Your task to perform on an android device: Search for the best books on Goodreads Image 0: 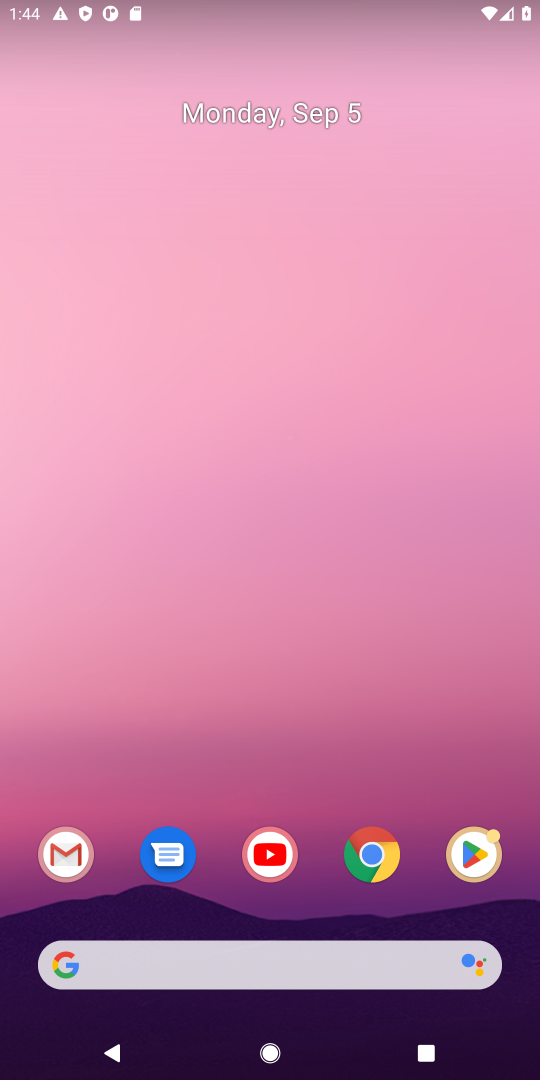
Step 0: click (334, 960)
Your task to perform on an android device: Search for the best books on Goodreads Image 1: 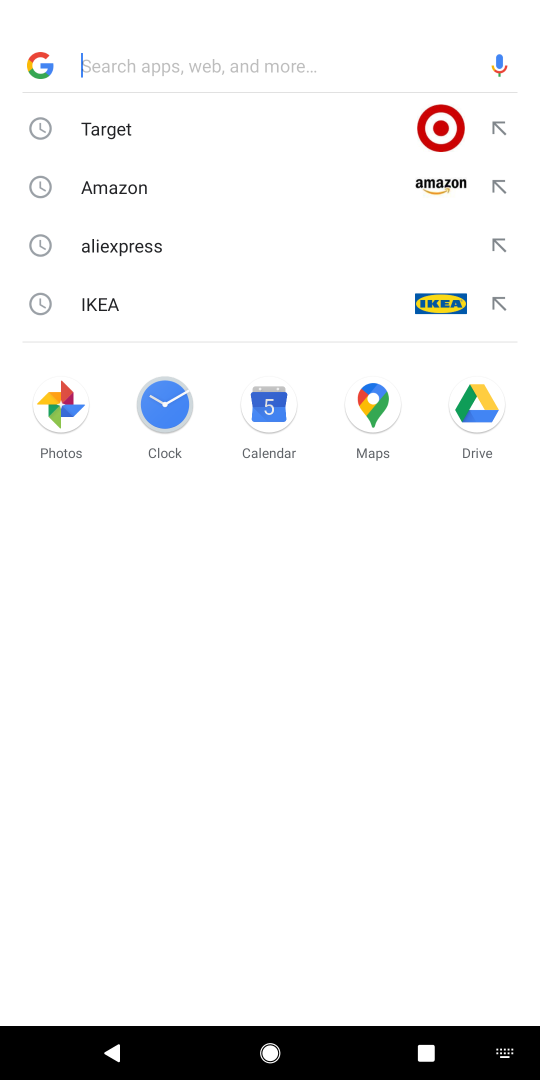
Step 1: press enter
Your task to perform on an android device: Search for the best books on Goodreads Image 2: 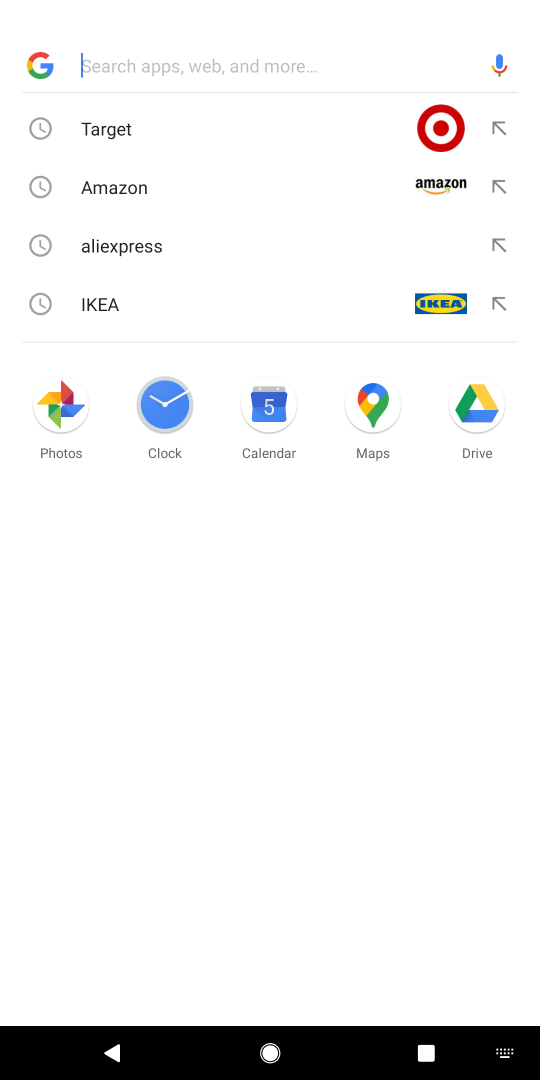
Step 2: type "goodreads"
Your task to perform on an android device: Search for the best books on Goodreads Image 3: 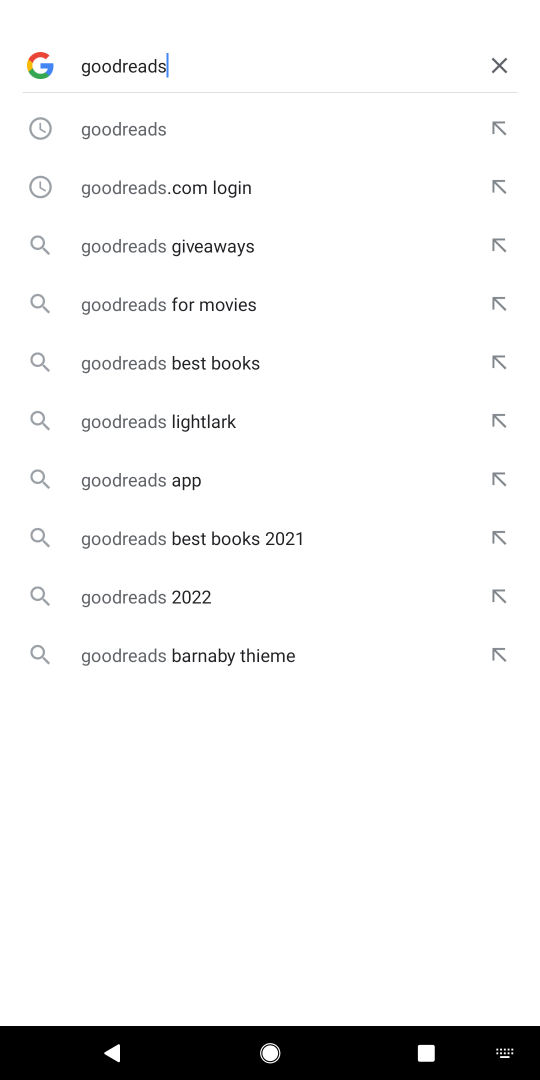
Step 3: click (140, 125)
Your task to perform on an android device: Search for the best books on Goodreads Image 4: 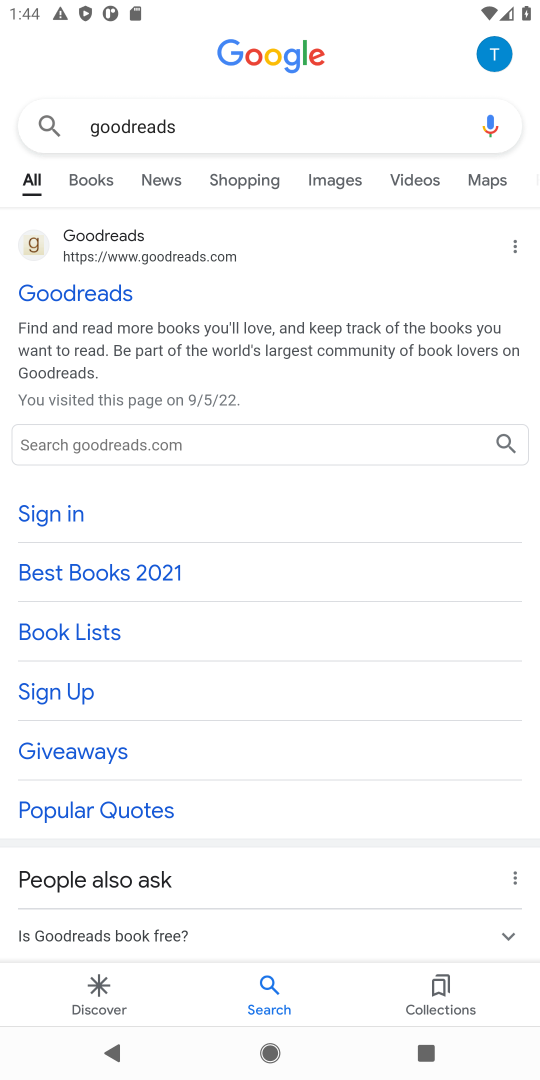
Step 4: click (109, 282)
Your task to perform on an android device: Search for the best books on Goodreads Image 5: 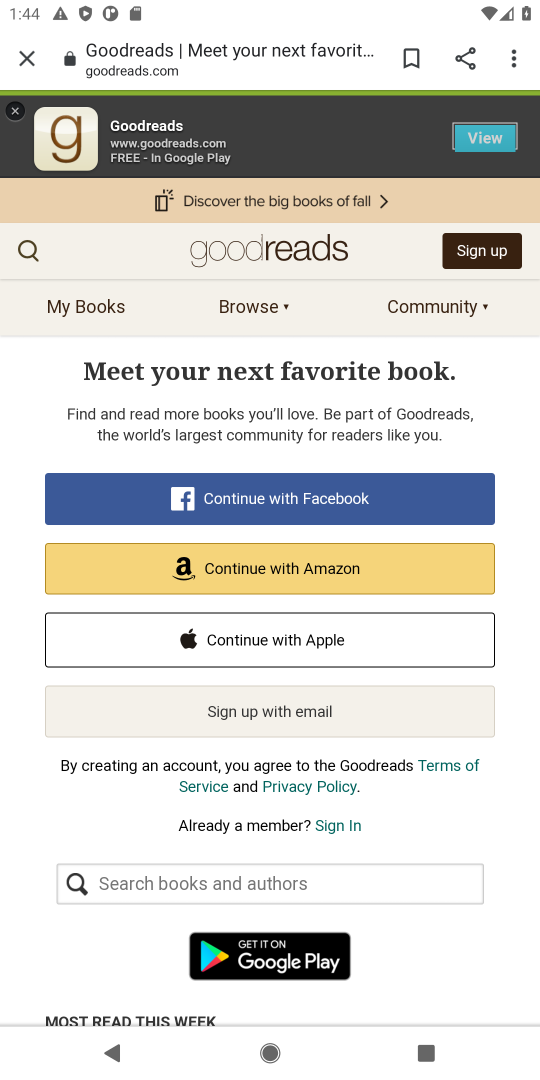
Step 5: click (52, 264)
Your task to perform on an android device: Search for the best books on Goodreads Image 6: 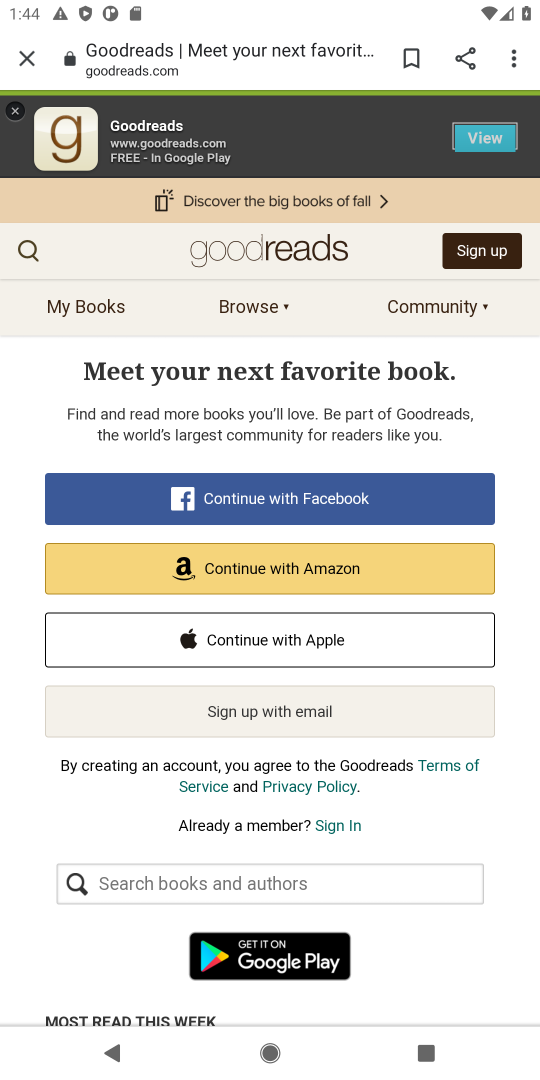
Step 6: click (51, 265)
Your task to perform on an android device: Search for the best books on Goodreads Image 7: 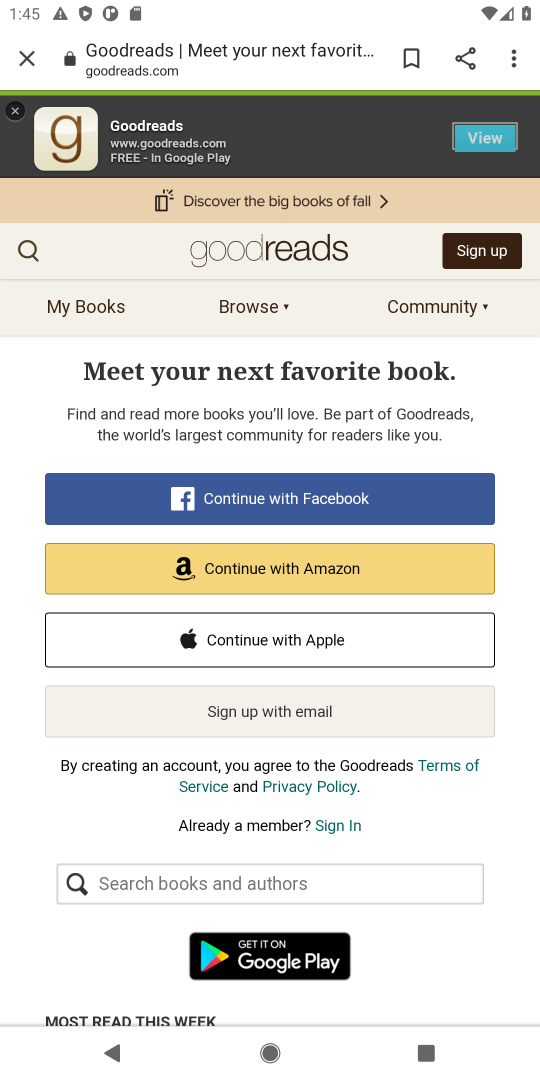
Step 7: click (34, 258)
Your task to perform on an android device: Search for the best books on Goodreads Image 8: 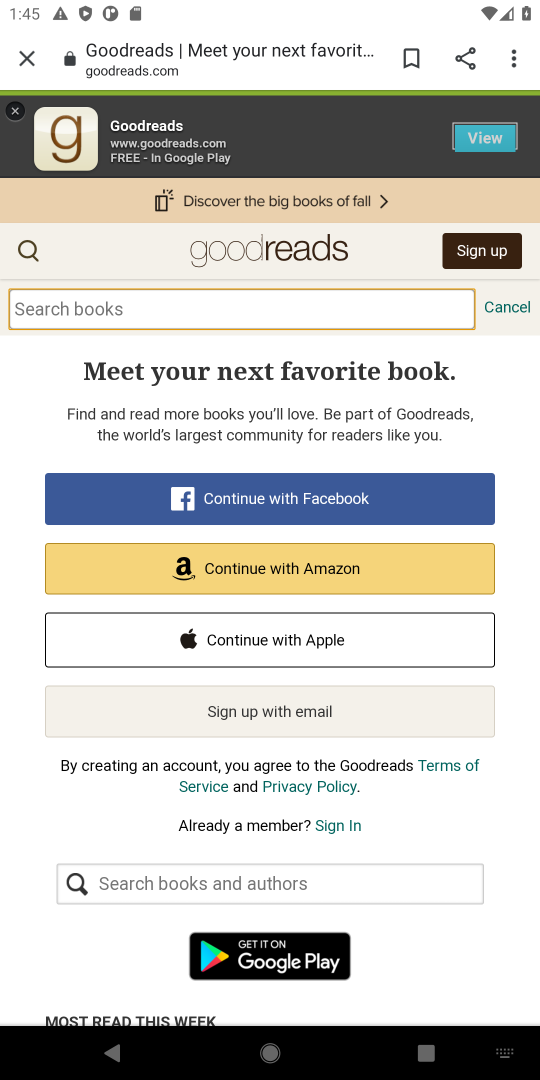
Step 8: press enter
Your task to perform on an android device: Search for the best books on Goodreads Image 9: 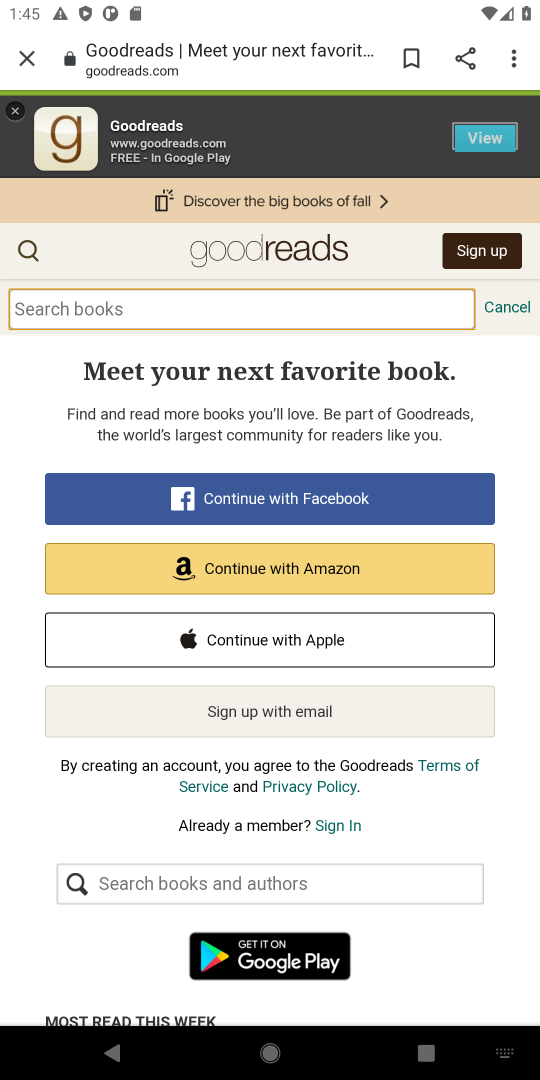
Step 9: type "best books"
Your task to perform on an android device: Search for the best books on Goodreads Image 10: 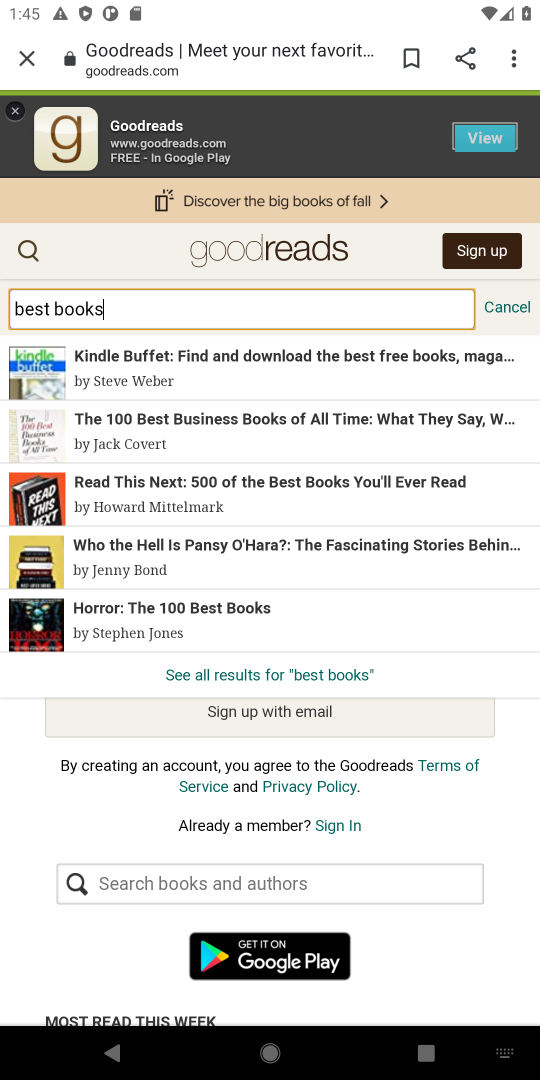
Step 10: task complete